Your task to perform on an android device: turn on the 12-hour format for clock Image 0: 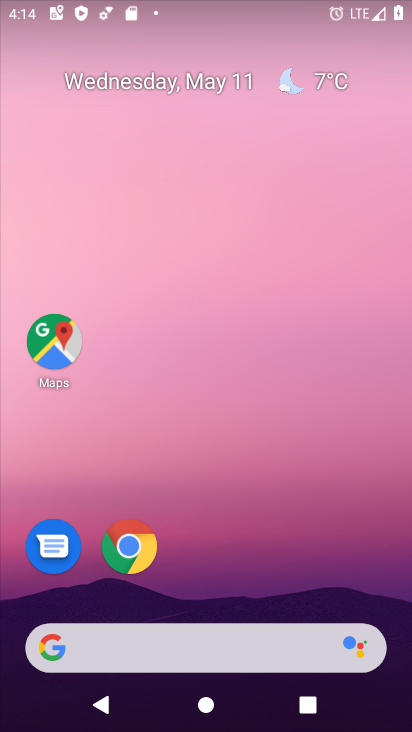
Step 0: drag from (351, 677) to (322, 47)
Your task to perform on an android device: turn on the 12-hour format for clock Image 1: 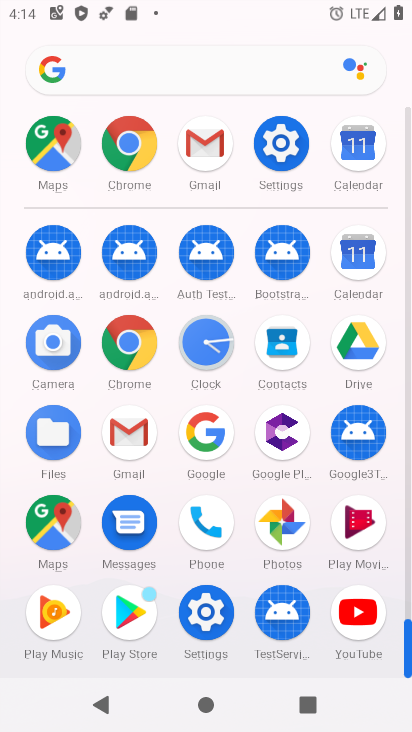
Step 1: click (211, 349)
Your task to perform on an android device: turn on the 12-hour format for clock Image 2: 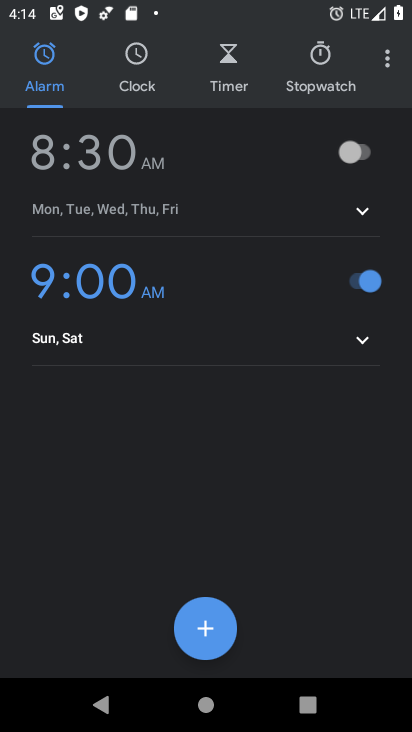
Step 2: drag from (391, 60) to (341, 265)
Your task to perform on an android device: turn on the 12-hour format for clock Image 3: 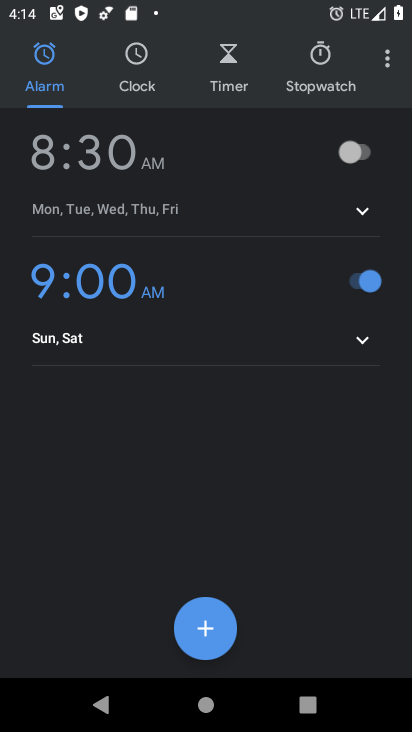
Step 3: click (293, 113)
Your task to perform on an android device: turn on the 12-hour format for clock Image 4: 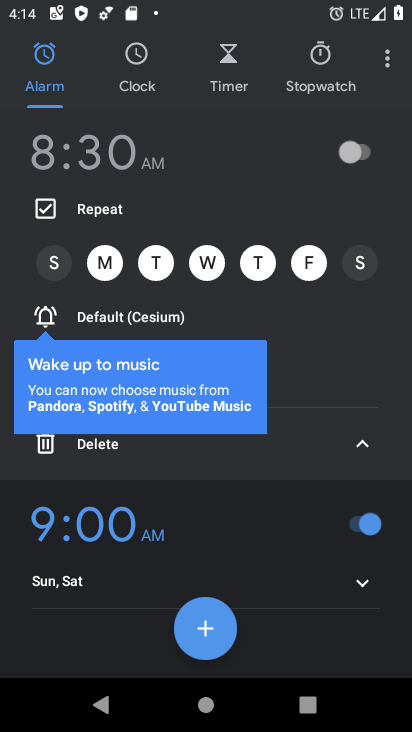
Step 4: click (385, 56)
Your task to perform on an android device: turn on the 12-hour format for clock Image 5: 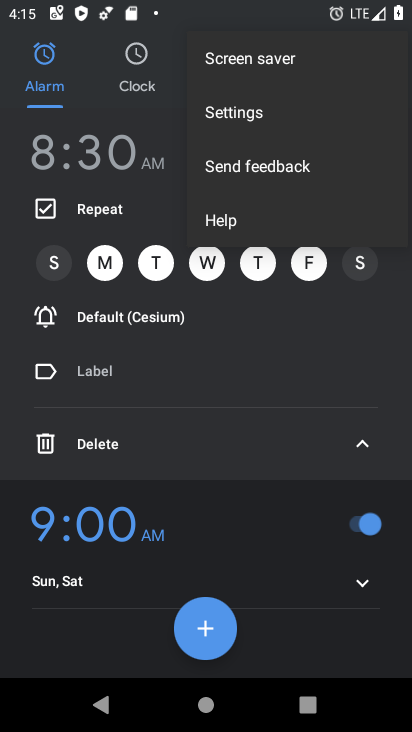
Step 5: click (269, 113)
Your task to perform on an android device: turn on the 12-hour format for clock Image 6: 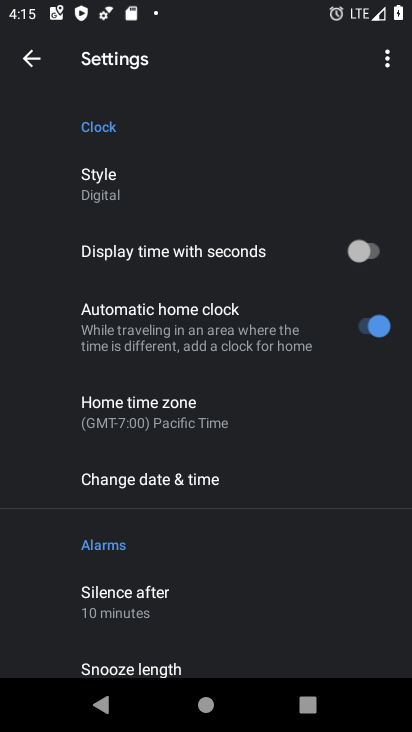
Step 6: click (162, 475)
Your task to perform on an android device: turn on the 12-hour format for clock Image 7: 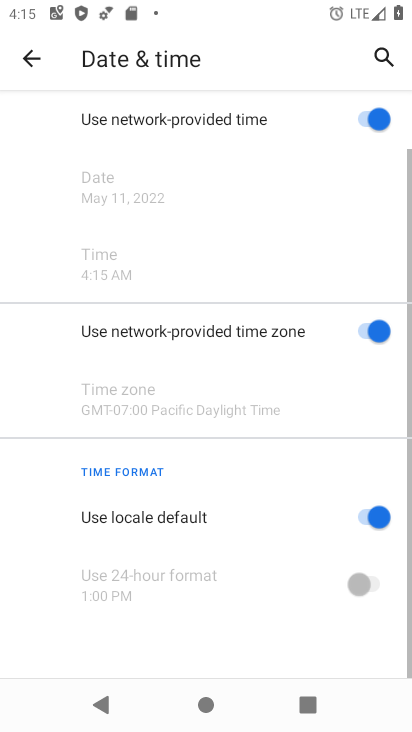
Step 7: drag from (211, 624) to (265, 292)
Your task to perform on an android device: turn on the 12-hour format for clock Image 8: 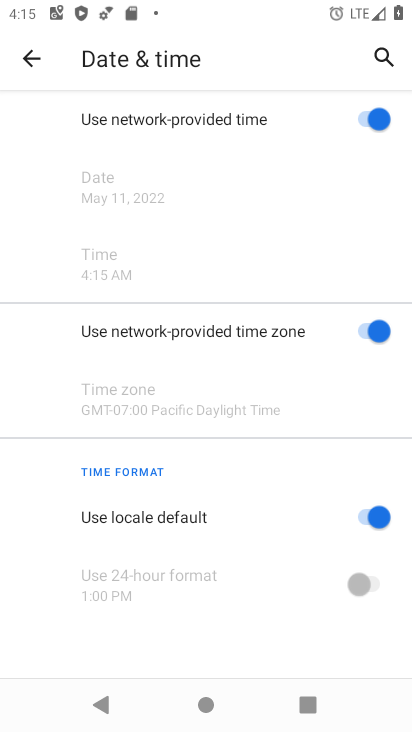
Step 8: click (372, 513)
Your task to perform on an android device: turn on the 12-hour format for clock Image 9: 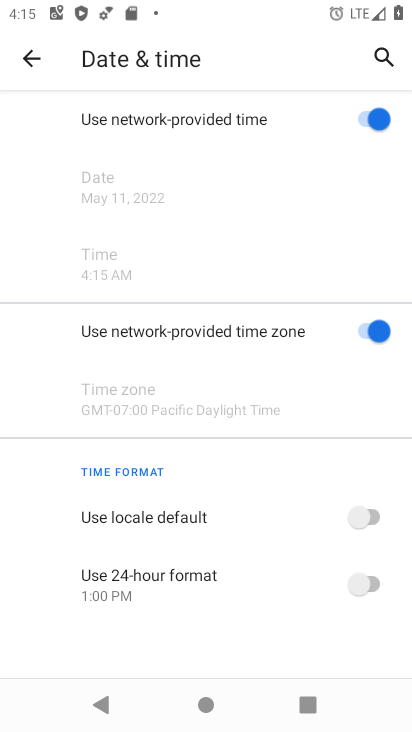
Step 9: task complete